Your task to perform on an android device: Open display settings Image 0: 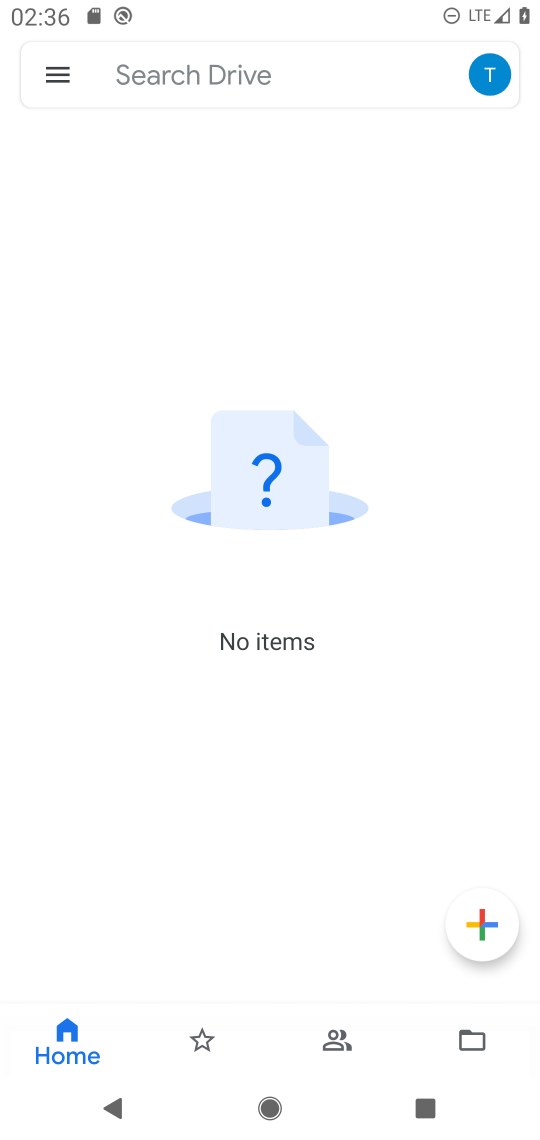
Step 0: press home button
Your task to perform on an android device: Open display settings Image 1: 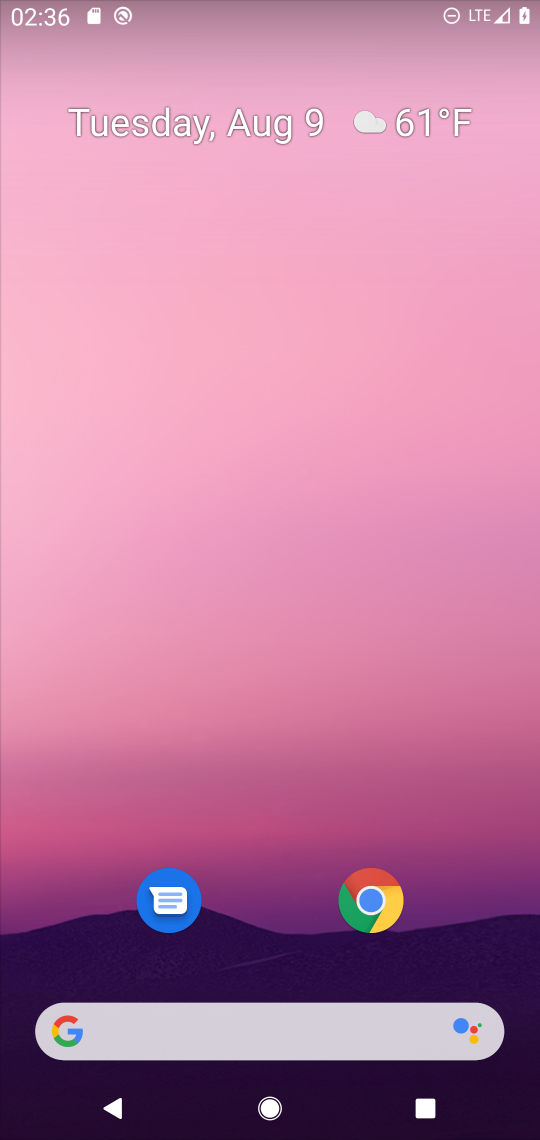
Step 1: drag from (459, 946) to (465, 201)
Your task to perform on an android device: Open display settings Image 2: 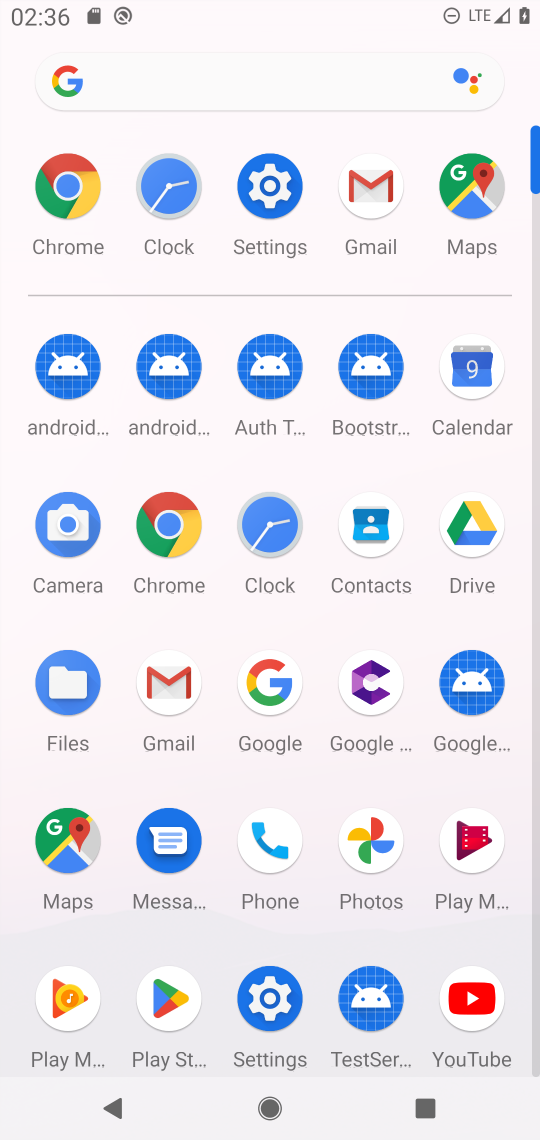
Step 2: click (280, 170)
Your task to perform on an android device: Open display settings Image 3: 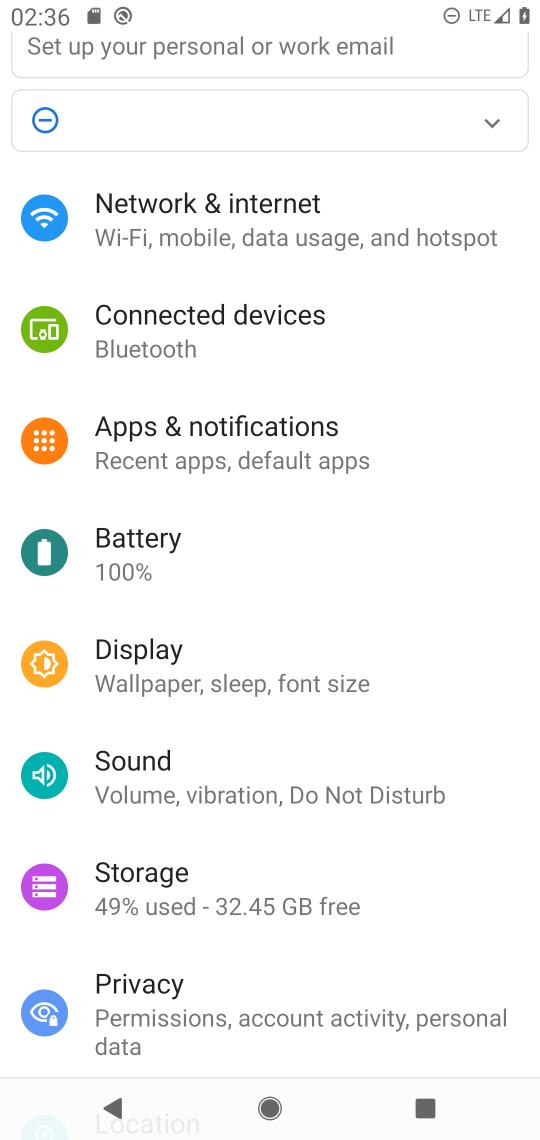
Step 3: drag from (490, 746) to (480, 547)
Your task to perform on an android device: Open display settings Image 4: 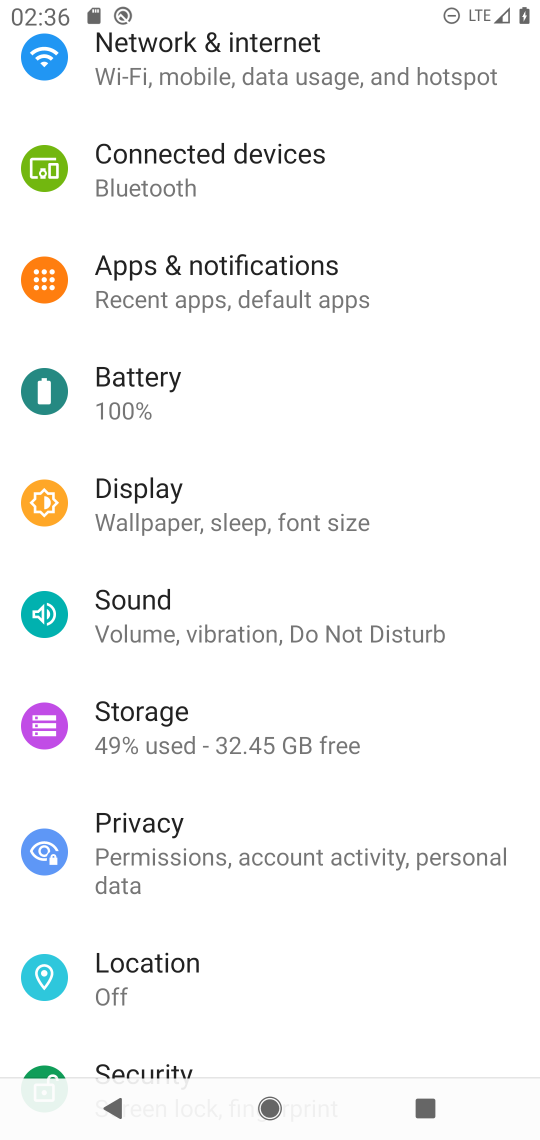
Step 4: drag from (459, 760) to (477, 594)
Your task to perform on an android device: Open display settings Image 5: 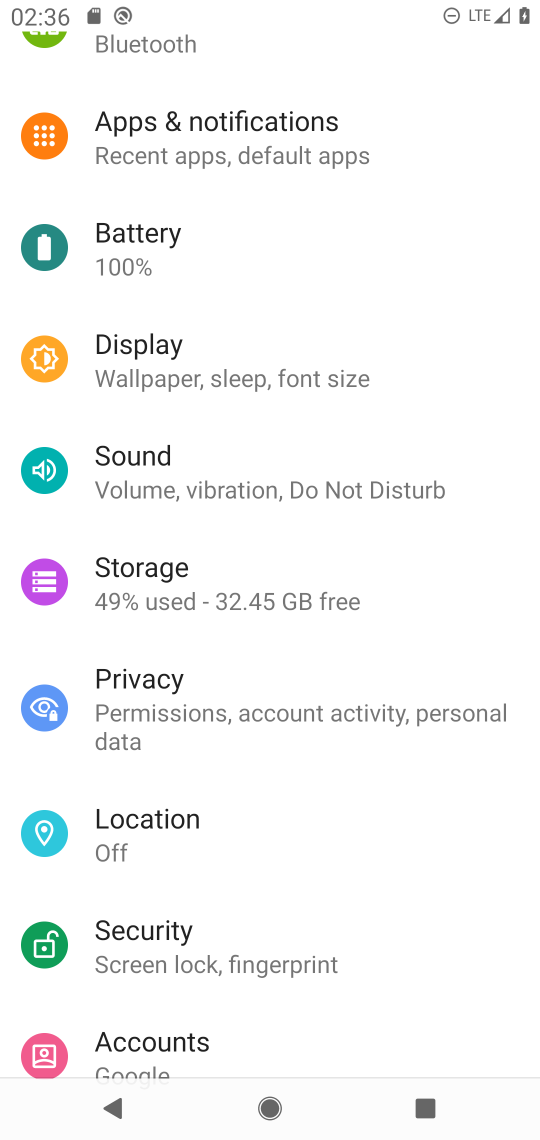
Step 5: drag from (451, 833) to (467, 635)
Your task to perform on an android device: Open display settings Image 6: 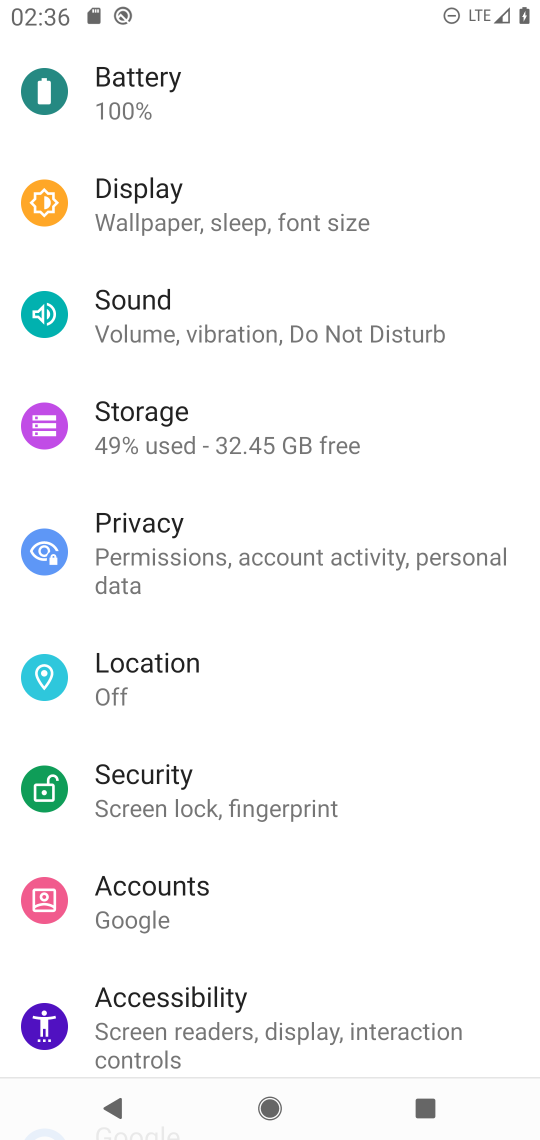
Step 6: drag from (442, 821) to (464, 624)
Your task to perform on an android device: Open display settings Image 7: 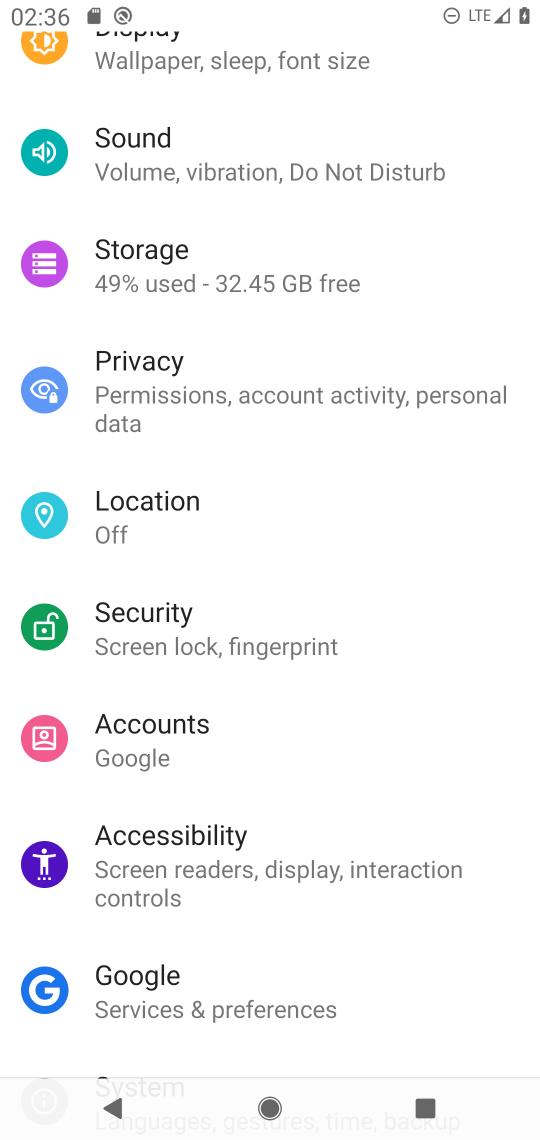
Step 7: drag from (474, 934) to (472, 690)
Your task to perform on an android device: Open display settings Image 8: 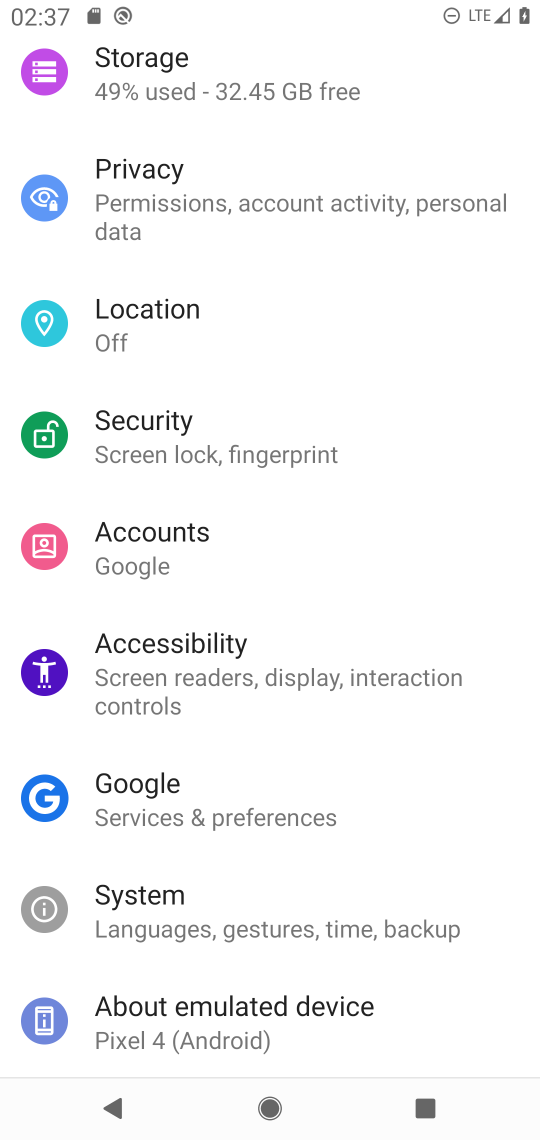
Step 8: drag from (474, 474) to (477, 655)
Your task to perform on an android device: Open display settings Image 9: 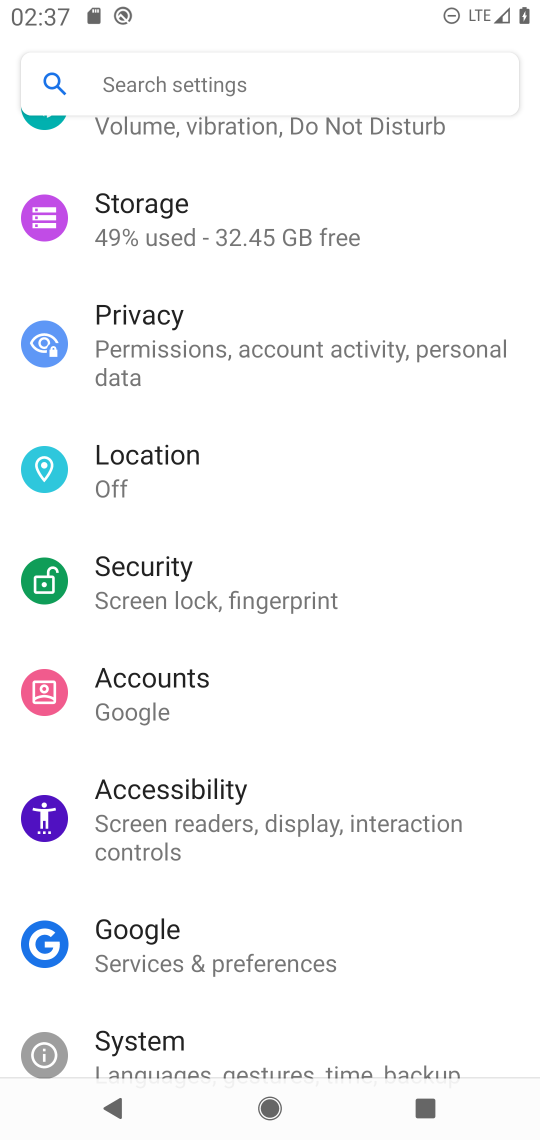
Step 9: drag from (484, 404) to (476, 599)
Your task to perform on an android device: Open display settings Image 10: 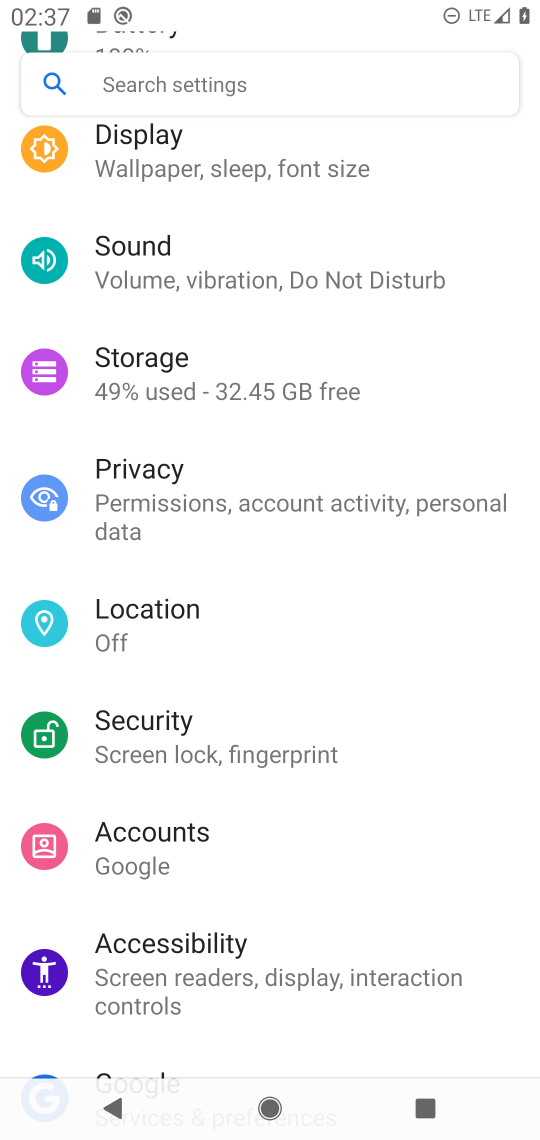
Step 10: drag from (457, 352) to (438, 523)
Your task to perform on an android device: Open display settings Image 11: 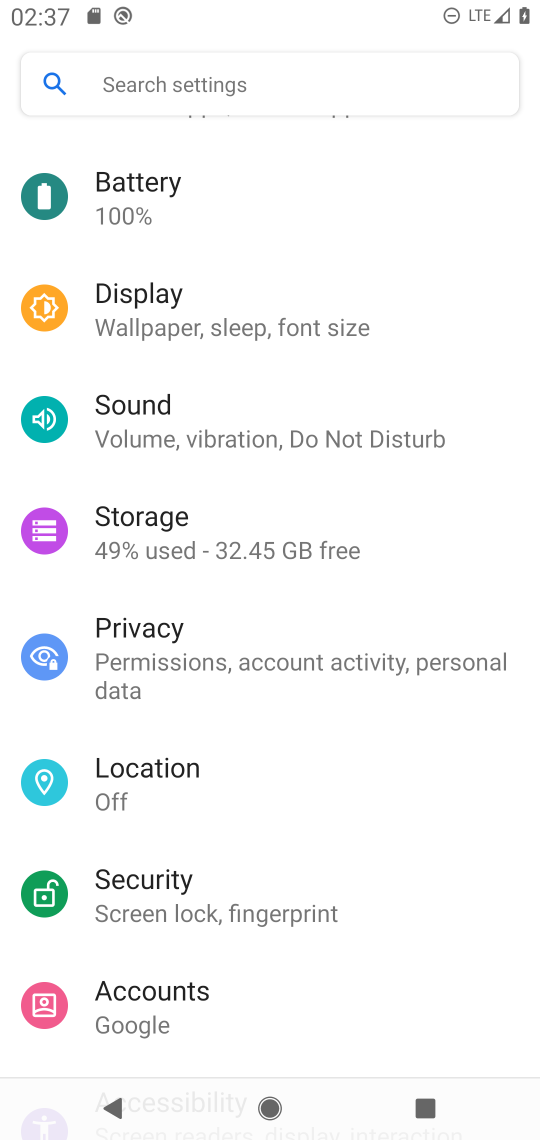
Step 11: drag from (473, 270) to (473, 476)
Your task to perform on an android device: Open display settings Image 12: 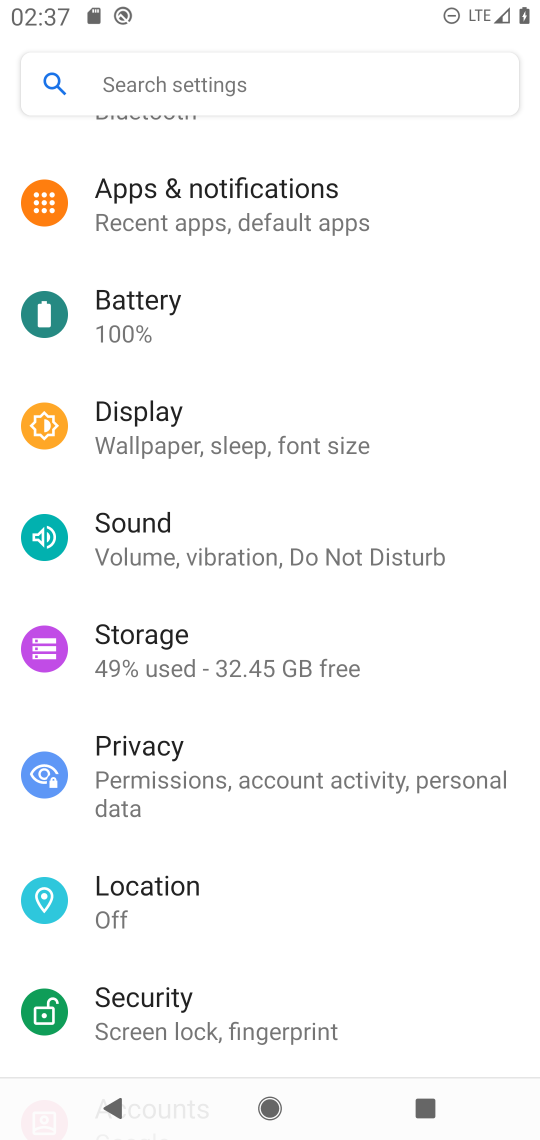
Step 12: drag from (461, 259) to (468, 570)
Your task to perform on an android device: Open display settings Image 13: 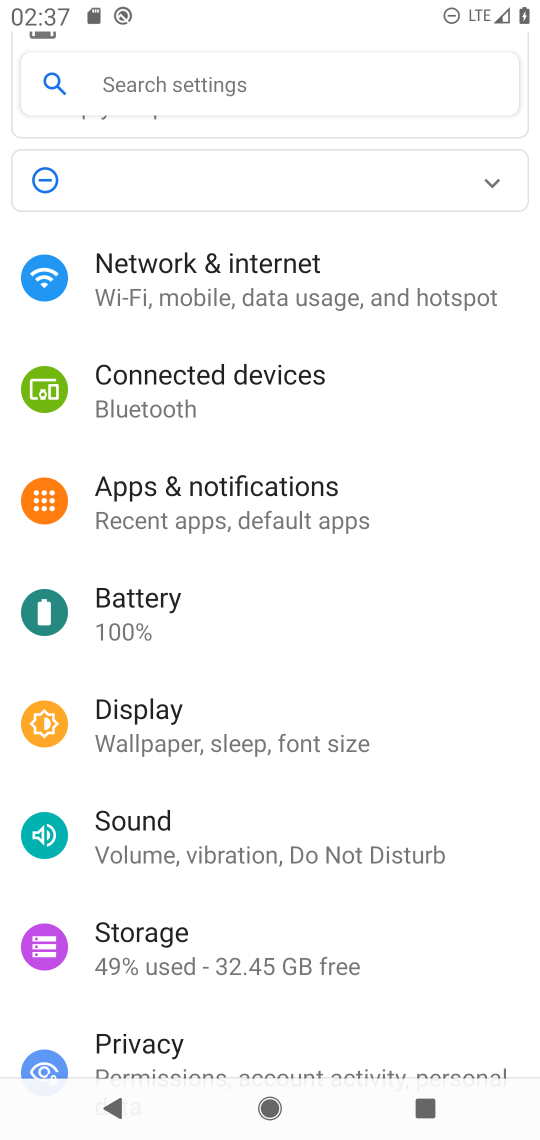
Step 13: click (277, 725)
Your task to perform on an android device: Open display settings Image 14: 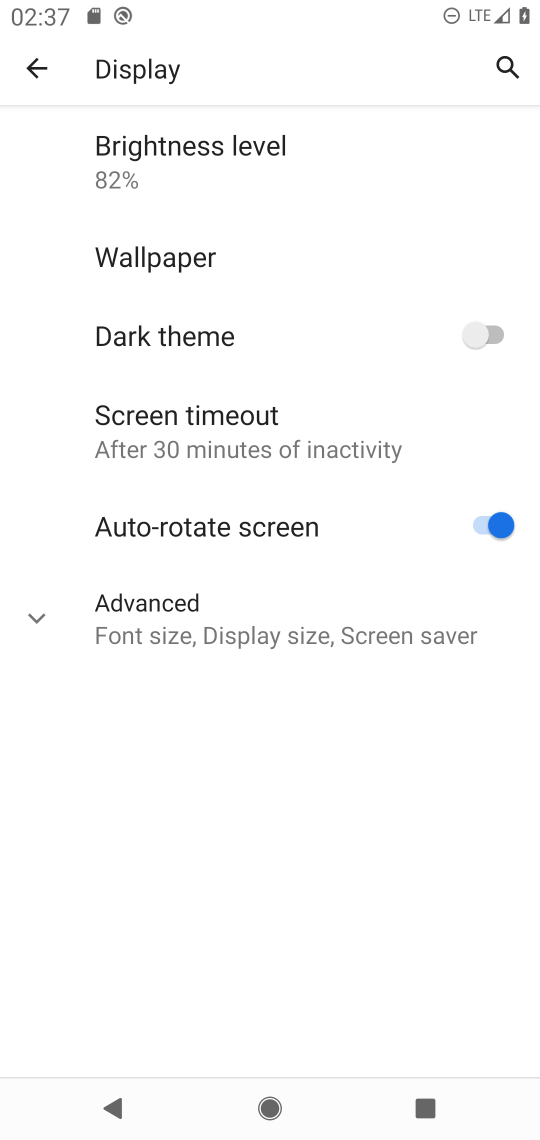
Step 14: task complete